Your task to perform on an android device: Go to Yahoo.com Image 0: 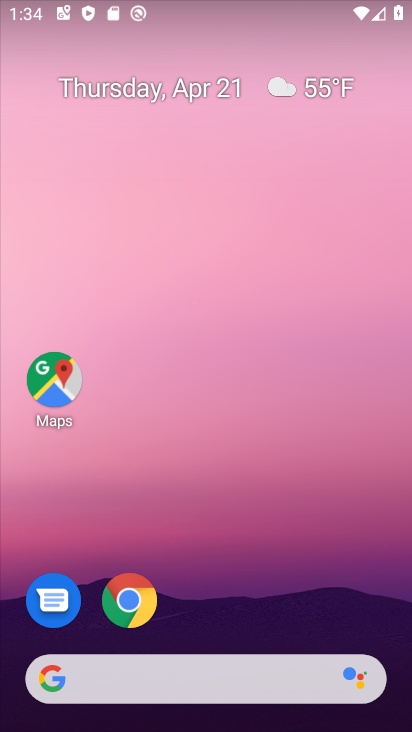
Step 0: click (146, 608)
Your task to perform on an android device: Go to Yahoo.com Image 1: 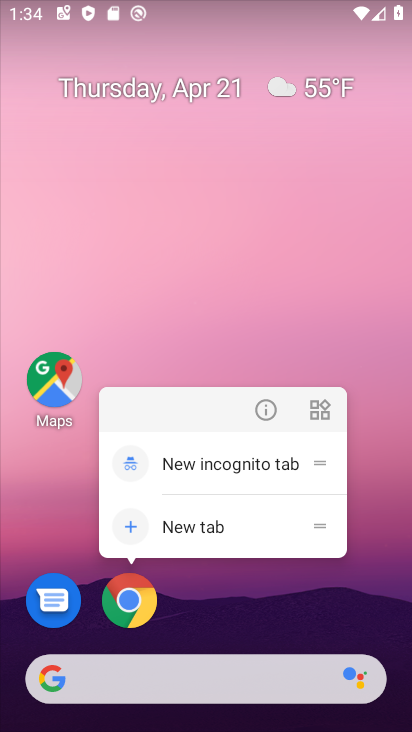
Step 1: click (142, 610)
Your task to perform on an android device: Go to Yahoo.com Image 2: 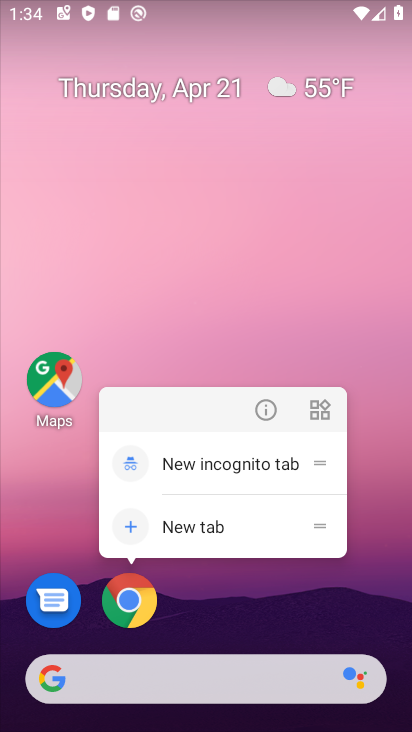
Step 2: click (142, 610)
Your task to perform on an android device: Go to Yahoo.com Image 3: 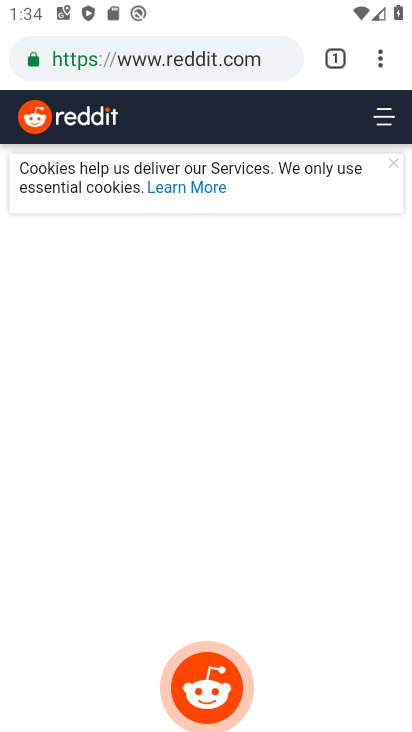
Step 3: click (172, 63)
Your task to perform on an android device: Go to Yahoo.com Image 4: 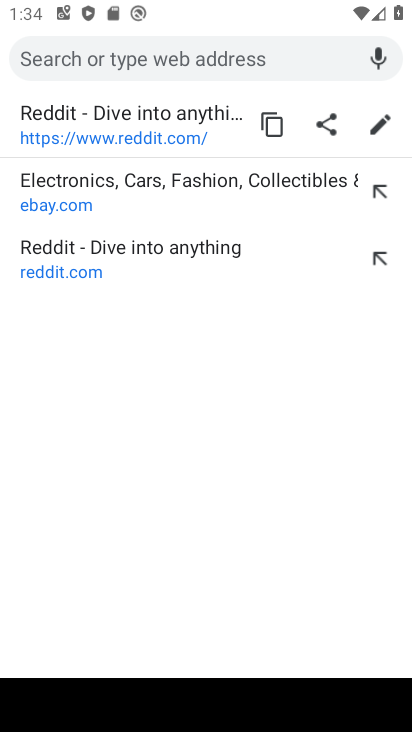
Step 4: type "yahoo.com"
Your task to perform on an android device: Go to Yahoo.com Image 5: 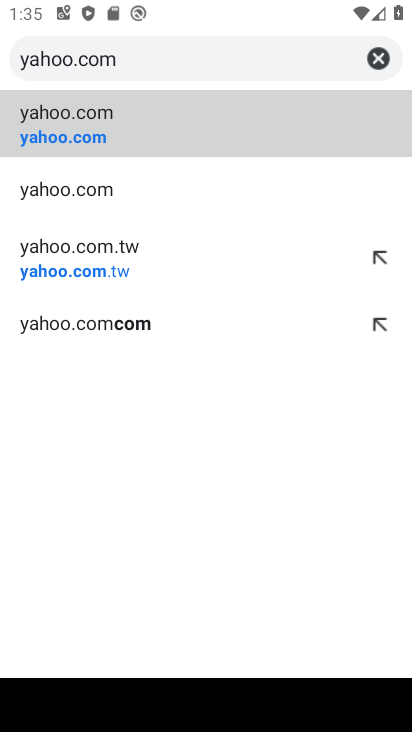
Step 5: click (49, 129)
Your task to perform on an android device: Go to Yahoo.com Image 6: 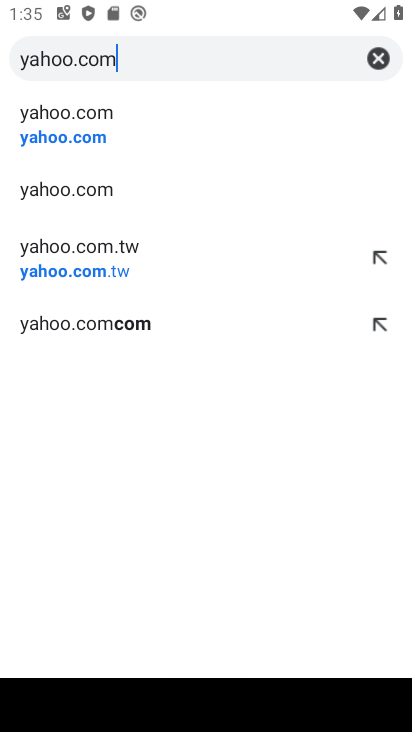
Step 6: click (45, 148)
Your task to perform on an android device: Go to Yahoo.com Image 7: 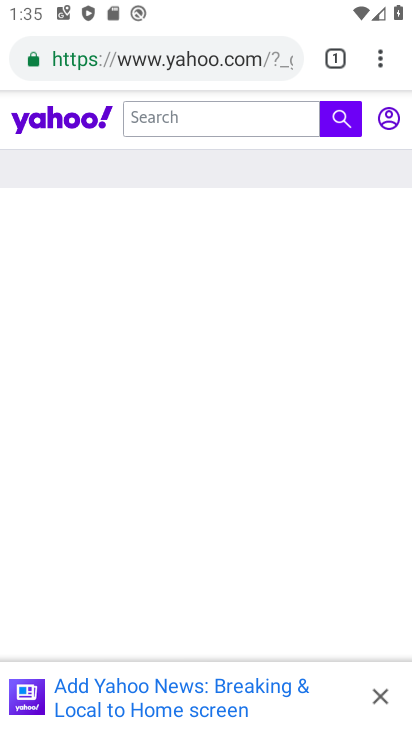
Step 7: task complete